Your task to perform on an android device: Open display settings Image 0: 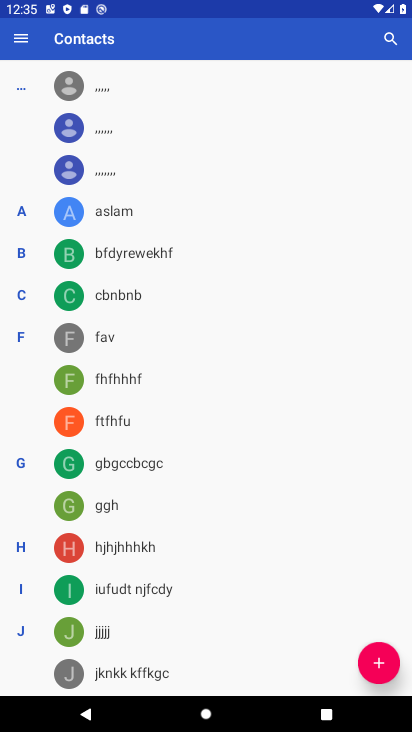
Step 0: press home button
Your task to perform on an android device: Open display settings Image 1: 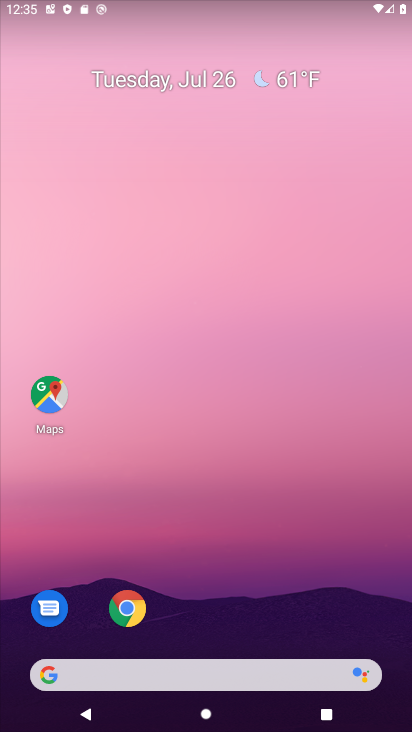
Step 1: drag from (360, 595) to (344, 240)
Your task to perform on an android device: Open display settings Image 2: 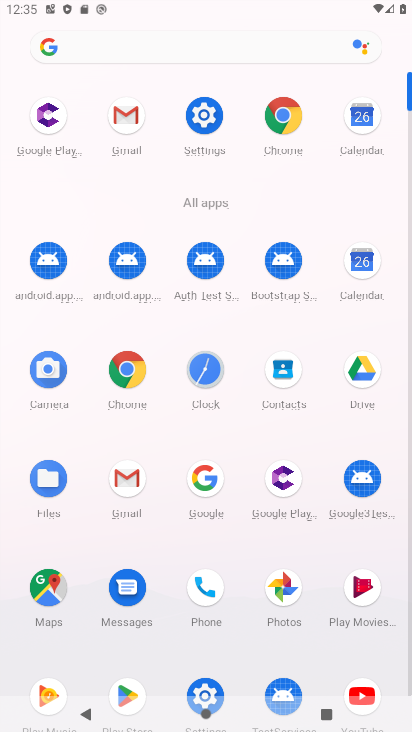
Step 2: click (197, 104)
Your task to perform on an android device: Open display settings Image 3: 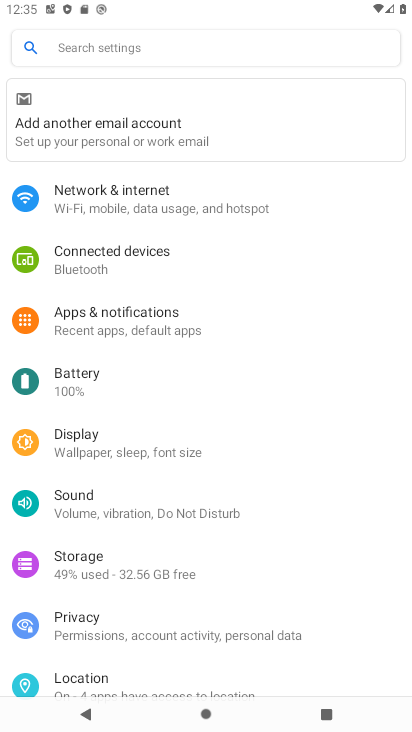
Step 3: drag from (290, 433) to (307, 348)
Your task to perform on an android device: Open display settings Image 4: 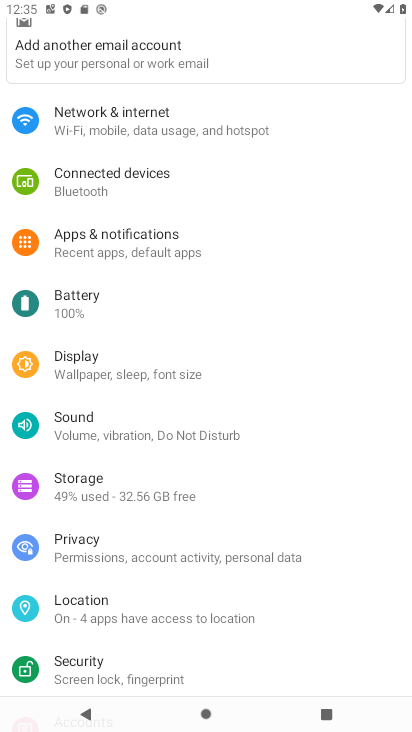
Step 4: drag from (320, 458) to (323, 386)
Your task to perform on an android device: Open display settings Image 5: 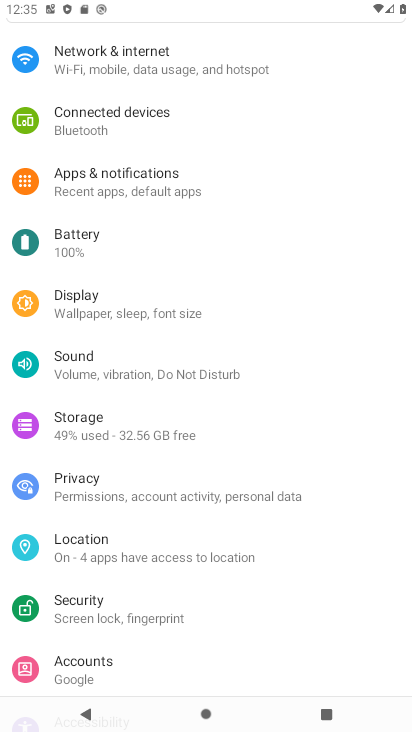
Step 5: drag from (337, 512) to (337, 414)
Your task to perform on an android device: Open display settings Image 6: 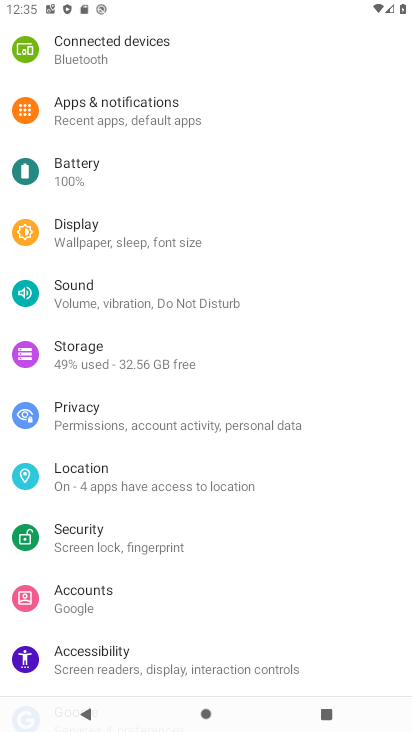
Step 6: drag from (325, 517) to (333, 405)
Your task to perform on an android device: Open display settings Image 7: 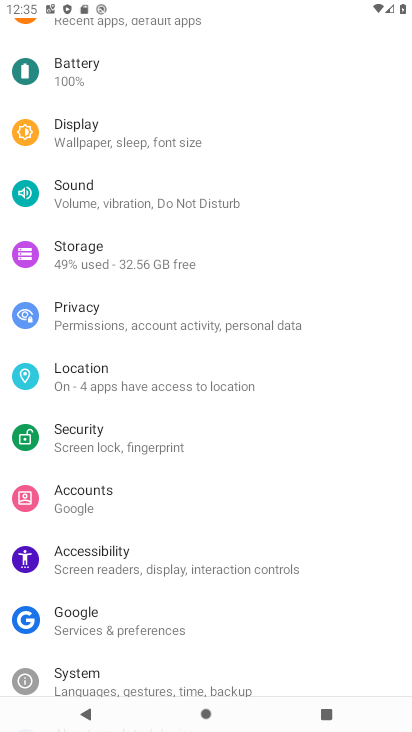
Step 7: drag from (316, 540) to (317, 482)
Your task to perform on an android device: Open display settings Image 8: 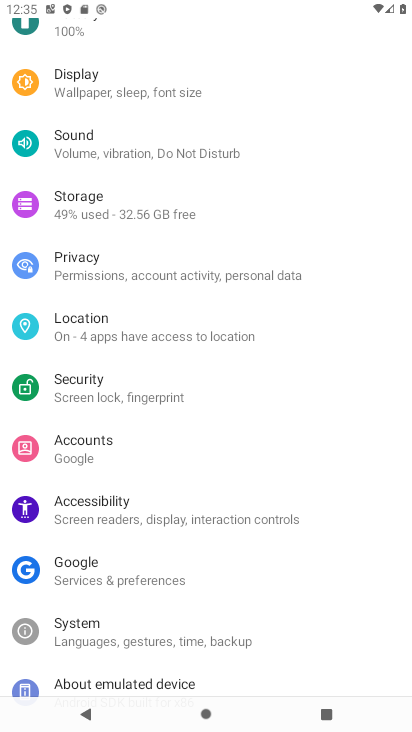
Step 8: drag from (317, 601) to (323, 487)
Your task to perform on an android device: Open display settings Image 9: 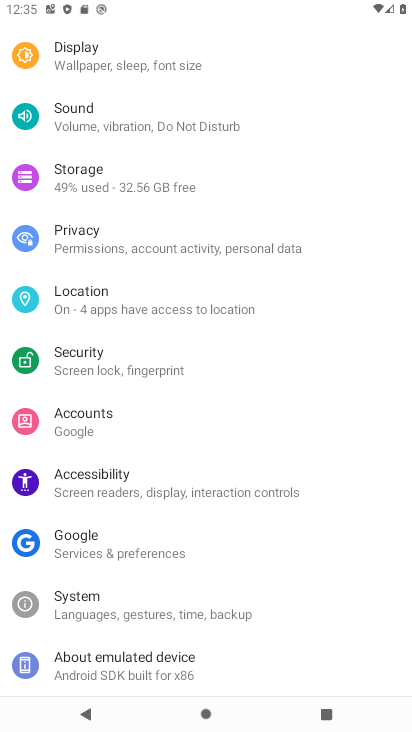
Step 9: drag from (323, 346) to (326, 456)
Your task to perform on an android device: Open display settings Image 10: 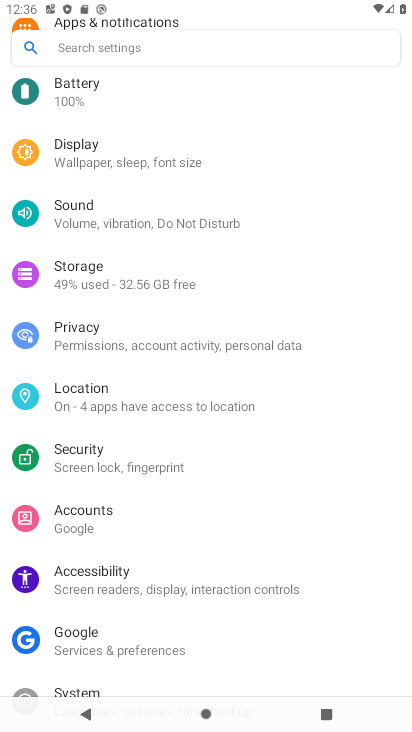
Step 10: drag from (324, 275) to (324, 409)
Your task to perform on an android device: Open display settings Image 11: 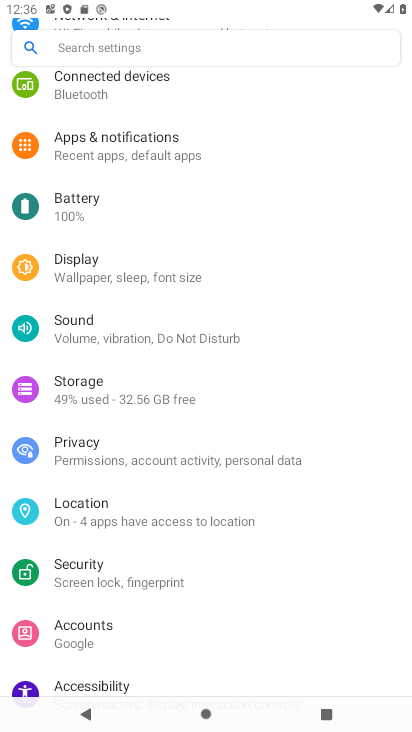
Step 11: drag from (288, 260) to (293, 393)
Your task to perform on an android device: Open display settings Image 12: 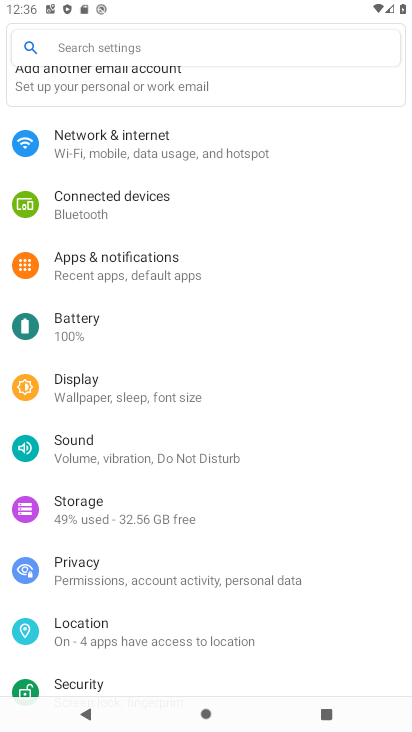
Step 12: click (203, 391)
Your task to perform on an android device: Open display settings Image 13: 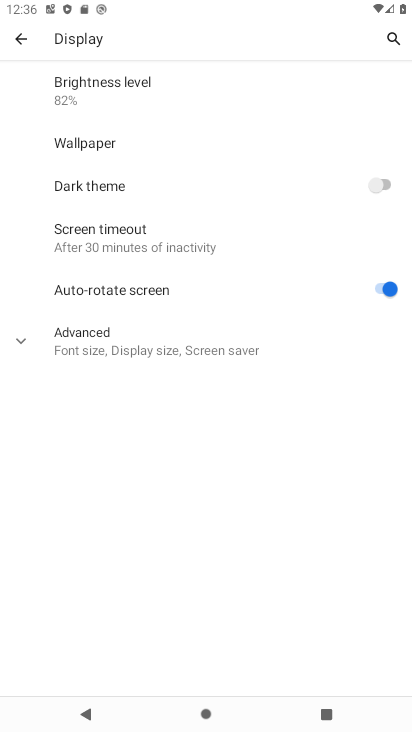
Step 13: click (198, 351)
Your task to perform on an android device: Open display settings Image 14: 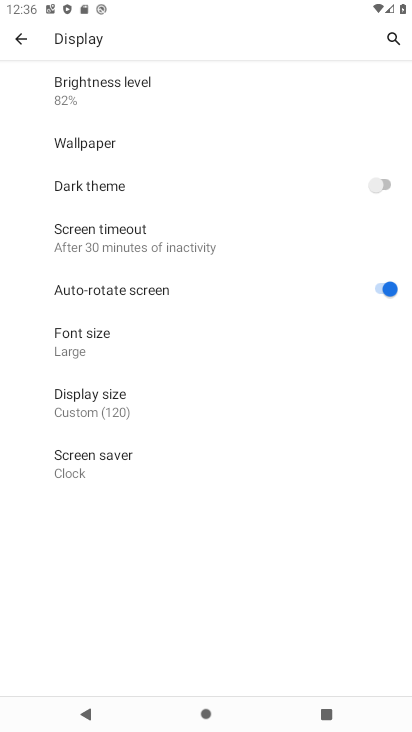
Step 14: task complete